Your task to perform on an android device: open device folders in google photos Image 0: 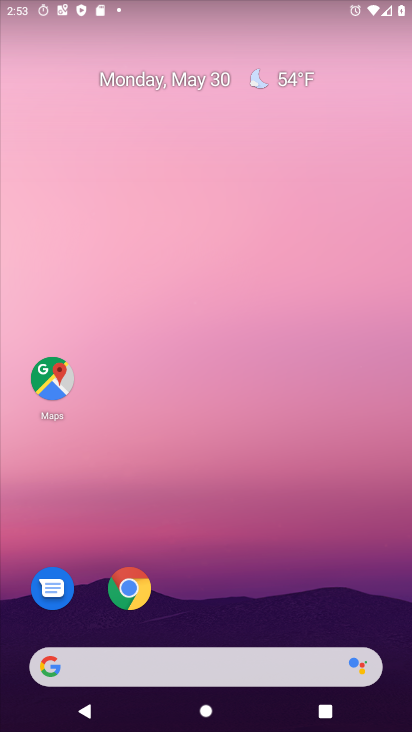
Step 0: drag from (272, 613) to (288, 0)
Your task to perform on an android device: open device folders in google photos Image 1: 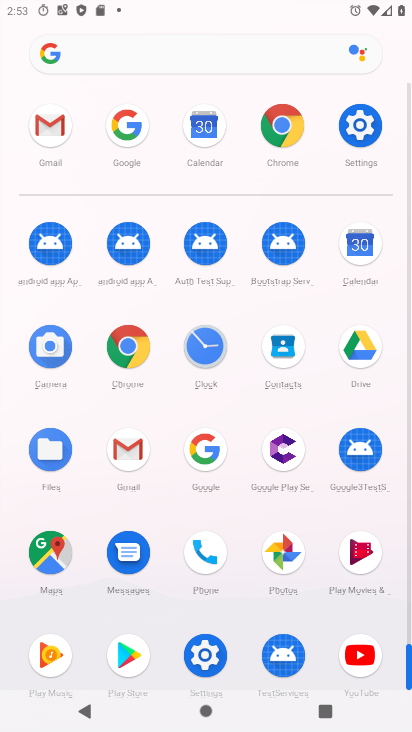
Step 1: click (280, 556)
Your task to perform on an android device: open device folders in google photos Image 2: 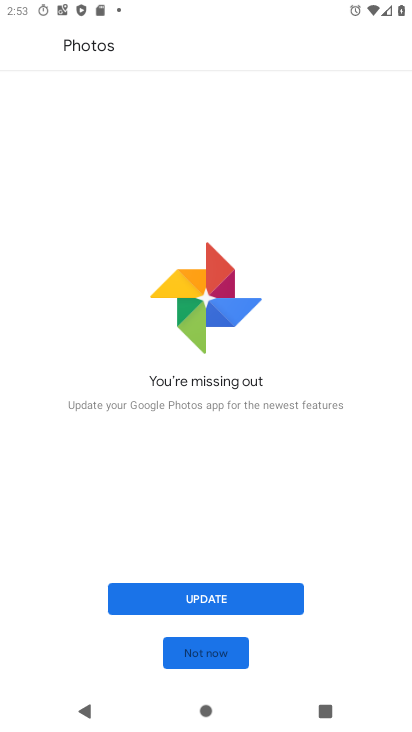
Step 2: click (217, 592)
Your task to perform on an android device: open device folders in google photos Image 3: 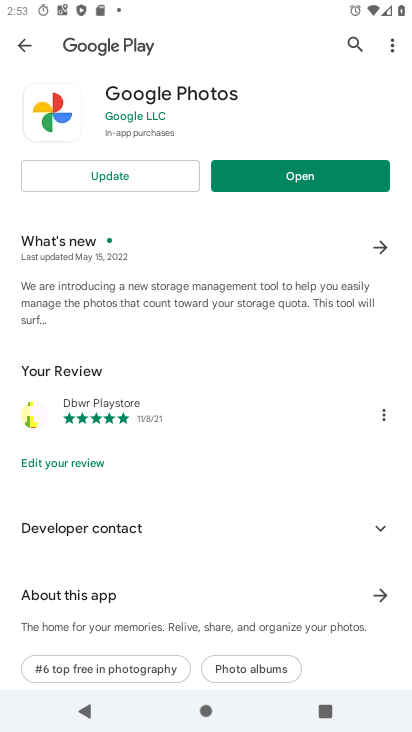
Step 3: click (117, 181)
Your task to perform on an android device: open device folders in google photos Image 4: 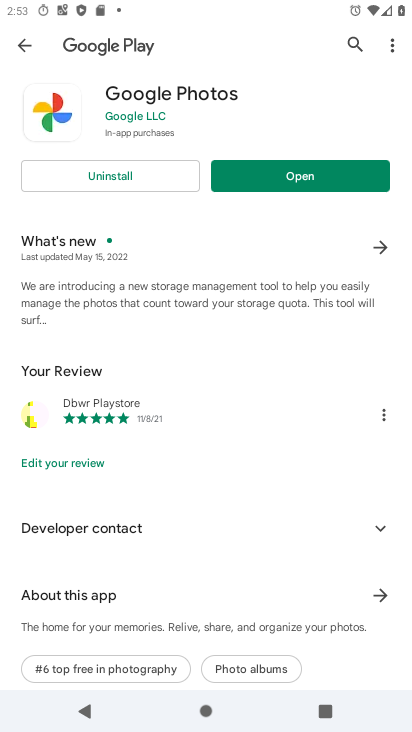
Step 4: click (321, 171)
Your task to perform on an android device: open device folders in google photos Image 5: 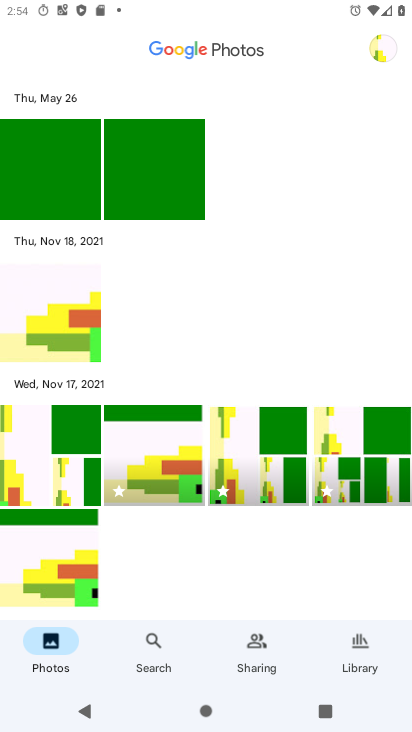
Step 5: click (380, 52)
Your task to perform on an android device: open device folders in google photos Image 6: 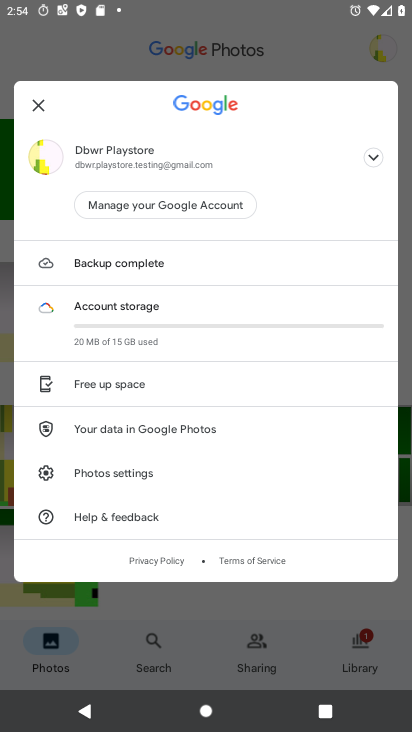
Step 6: task complete